Your task to perform on an android device: Open privacy settings Image 0: 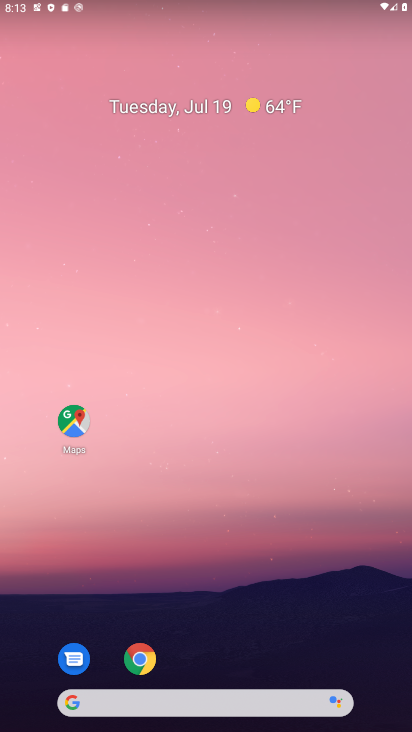
Step 0: drag from (208, 648) to (191, 58)
Your task to perform on an android device: Open privacy settings Image 1: 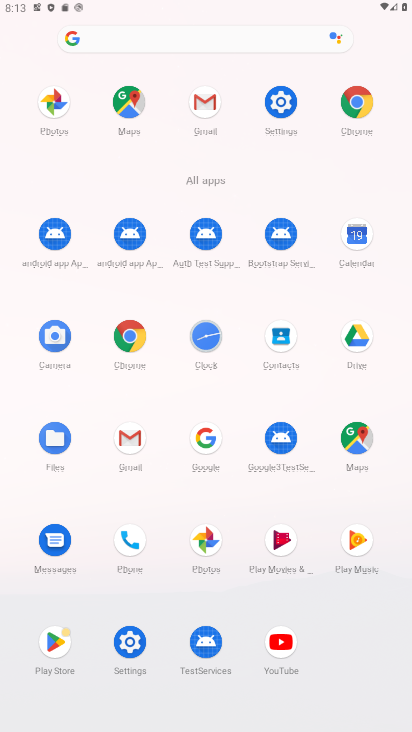
Step 1: click (292, 97)
Your task to perform on an android device: Open privacy settings Image 2: 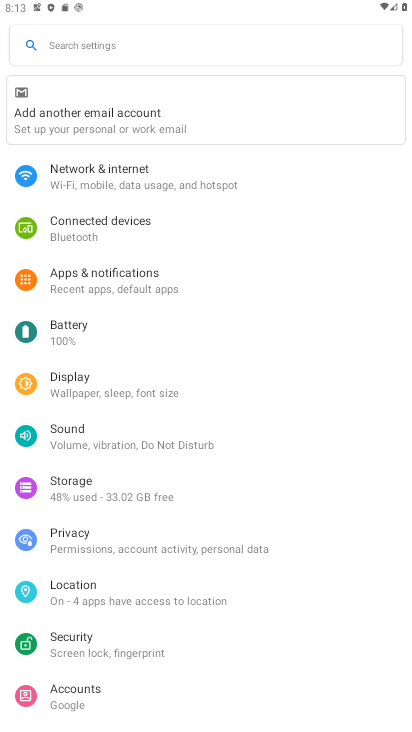
Step 2: click (119, 557)
Your task to perform on an android device: Open privacy settings Image 3: 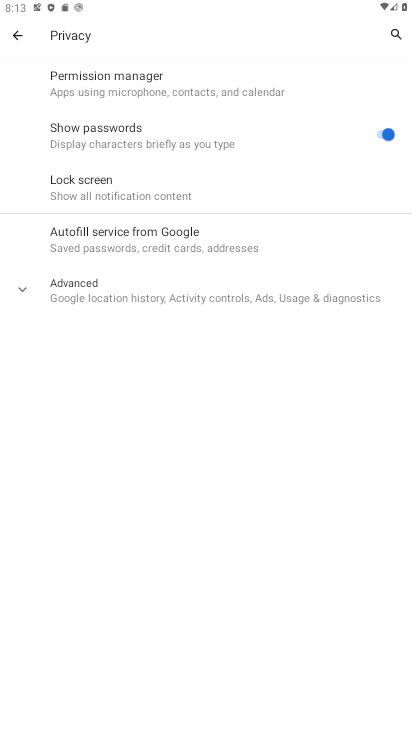
Step 3: task complete